Your task to perform on an android device: Show me popular games on the Play Store Image 0: 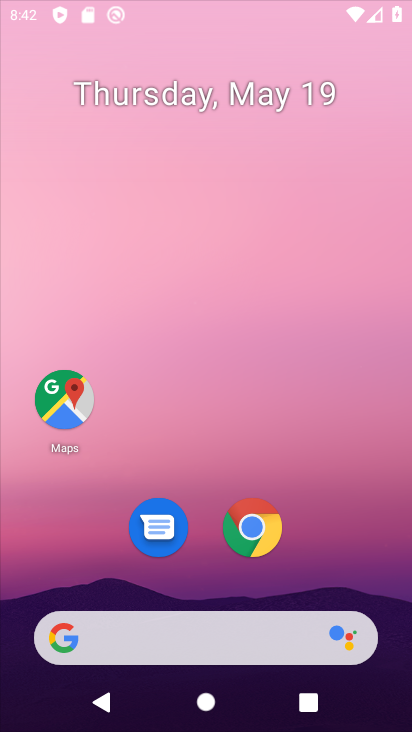
Step 0: click (305, 215)
Your task to perform on an android device: Show me popular games on the Play Store Image 1: 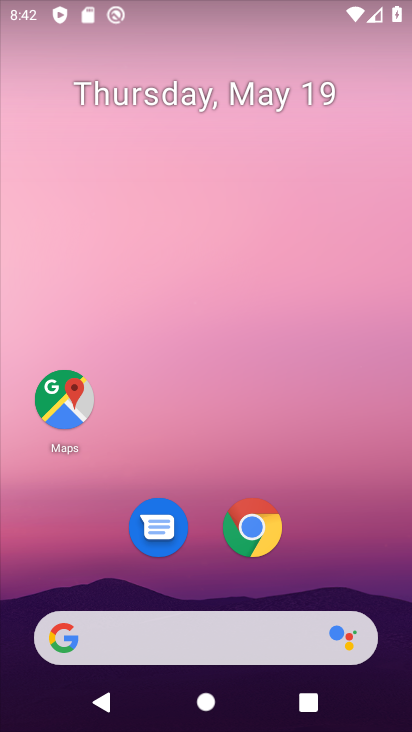
Step 1: drag from (217, 585) to (219, 182)
Your task to perform on an android device: Show me popular games on the Play Store Image 2: 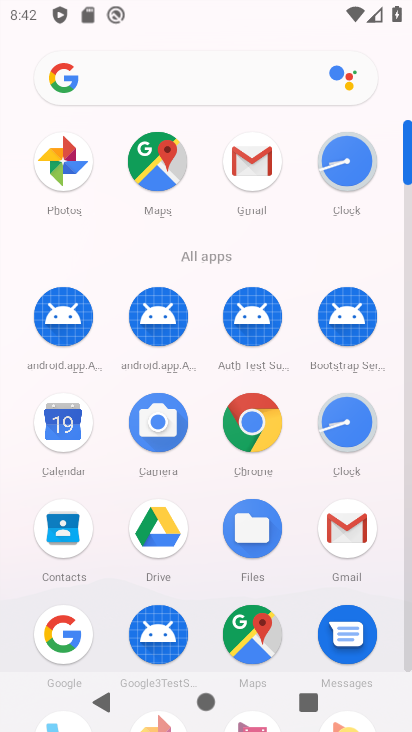
Step 2: drag from (217, 647) to (223, 299)
Your task to perform on an android device: Show me popular games on the Play Store Image 3: 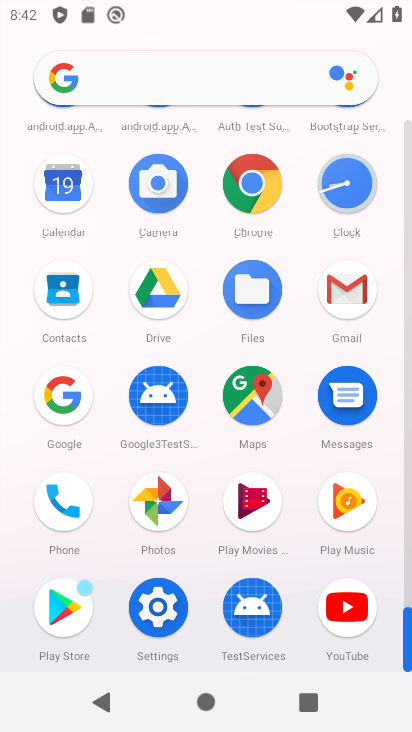
Step 3: click (62, 598)
Your task to perform on an android device: Show me popular games on the Play Store Image 4: 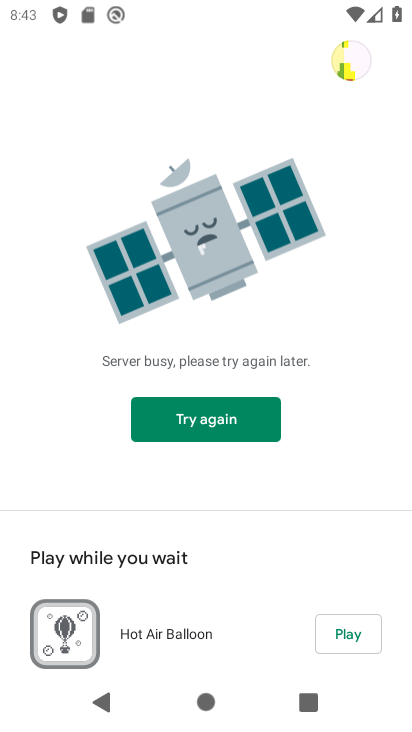
Step 4: click (338, 637)
Your task to perform on an android device: Show me popular games on the Play Store Image 5: 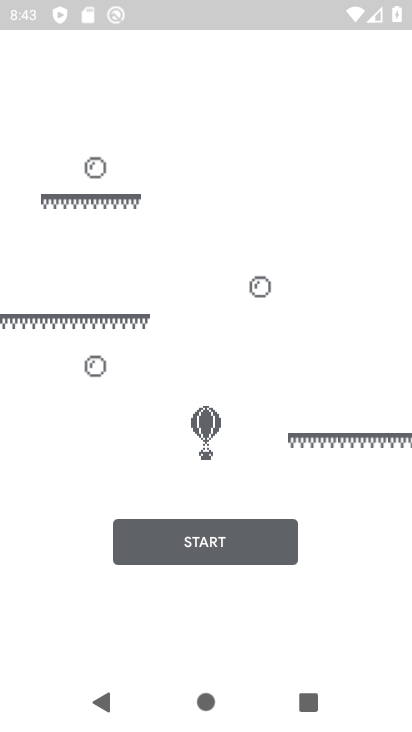
Step 5: press back button
Your task to perform on an android device: Show me popular games on the Play Store Image 6: 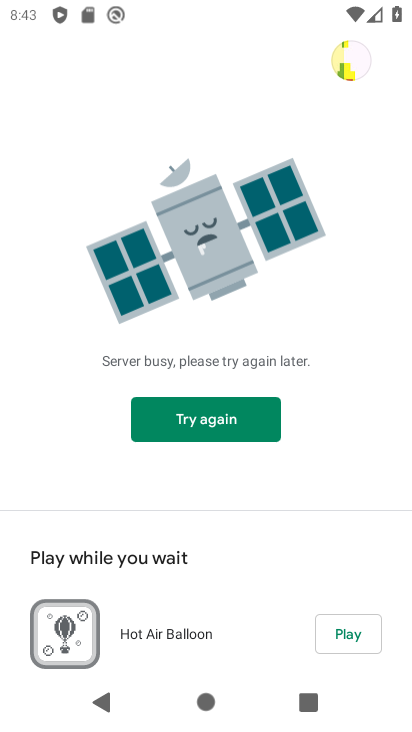
Step 6: click (215, 412)
Your task to perform on an android device: Show me popular games on the Play Store Image 7: 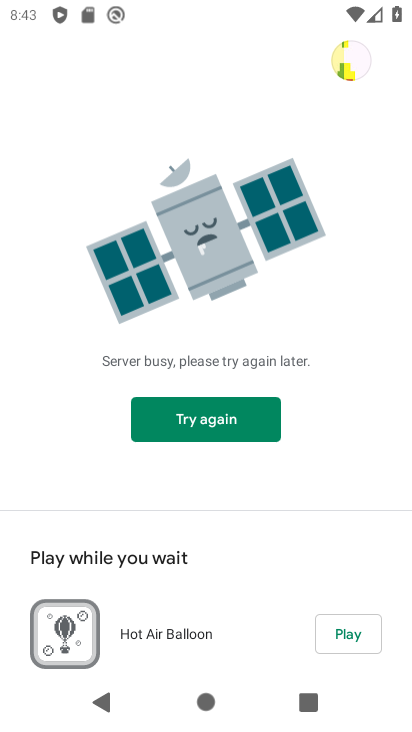
Step 7: click (190, 414)
Your task to perform on an android device: Show me popular games on the Play Store Image 8: 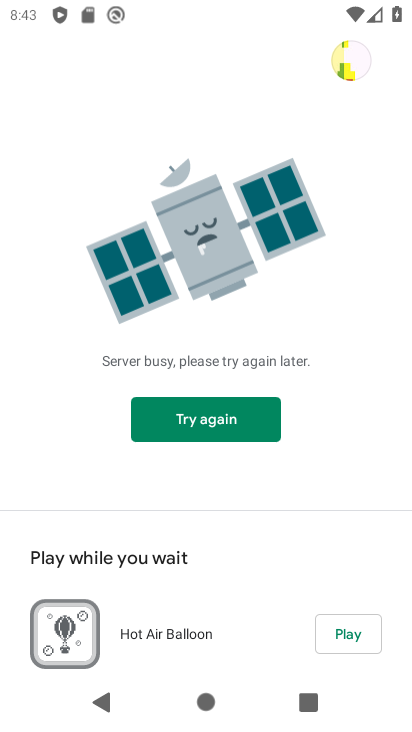
Step 8: task complete